Your task to perform on an android device: turn off javascript in the chrome app Image 0: 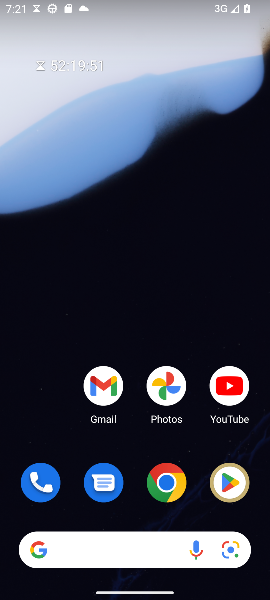
Step 0: drag from (181, 502) to (213, 58)
Your task to perform on an android device: turn off javascript in the chrome app Image 1: 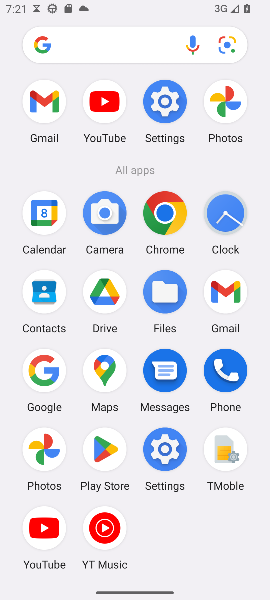
Step 1: click (166, 212)
Your task to perform on an android device: turn off javascript in the chrome app Image 2: 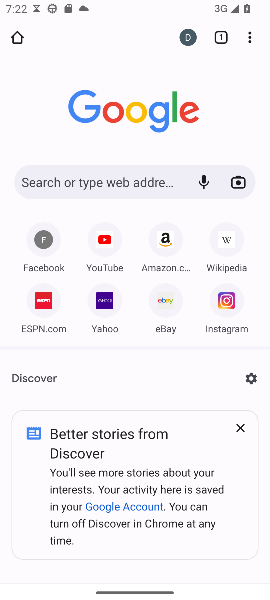
Step 2: drag from (255, 44) to (100, 400)
Your task to perform on an android device: turn off javascript in the chrome app Image 3: 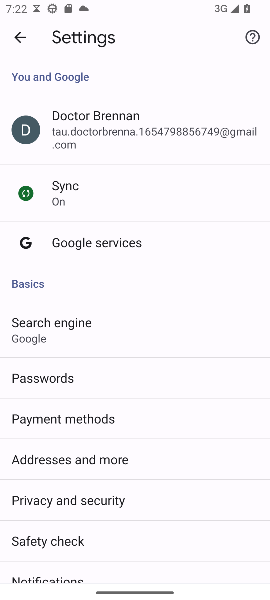
Step 3: drag from (97, 511) to (168, 134)
Your task to perform on an android device: turn off javascript in the chrome app Image 4: 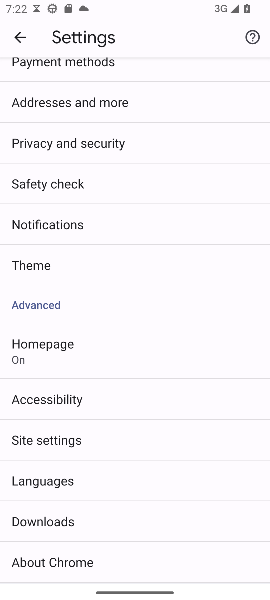
Step 4: click (44, 441)
Your task to perform on an android device: turn off javascript in the chrome app Image 5: 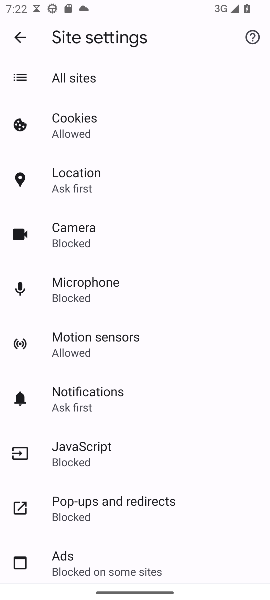
Step 5: click (68, 468)
Your task to perform on an android device: turn off javascript in the chrome app Image 6: 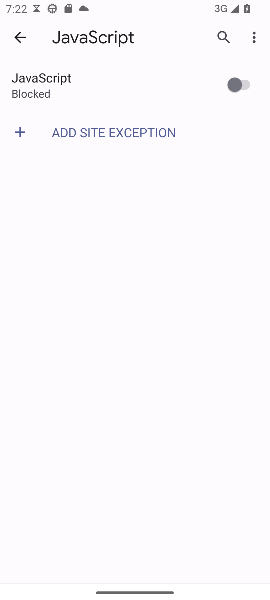
Step 6: task complete